Your task to perform on an android device: open the mobile data screen to see how much data has been used Image 0: 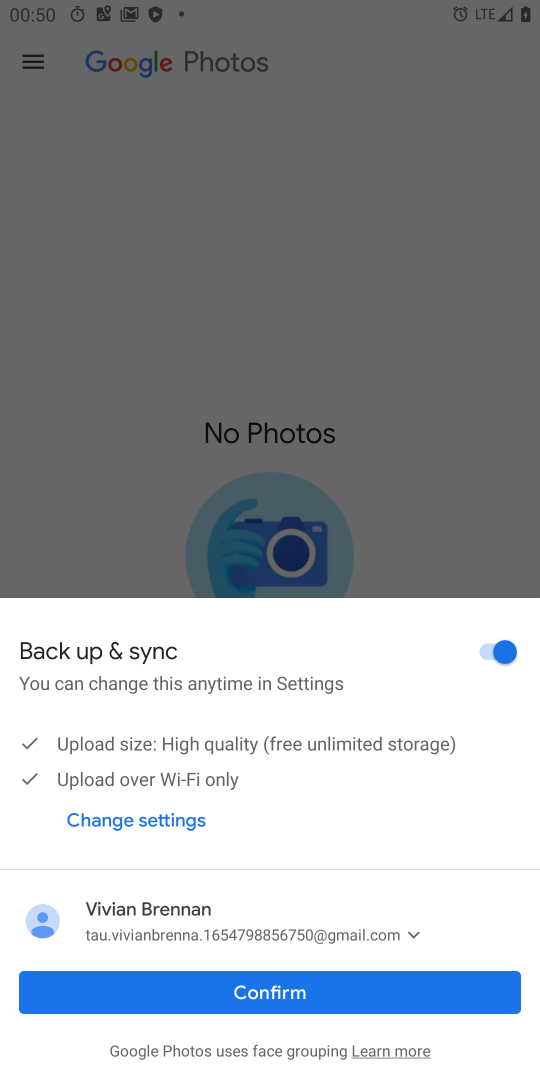
Step 0: press home button
Your task to perform on an android device: open the mobile data screen to see how much data has been used Image 1: 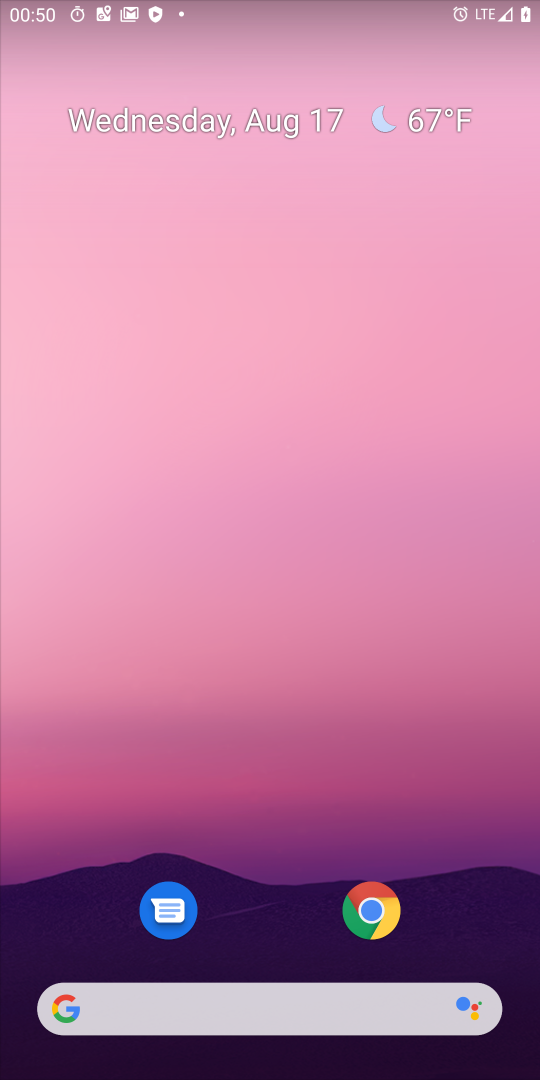
Step 1: drag from (268, 915) to (212, 113)
Your task to perform on an android device: open the mobile data screen to see how much data has been used Image 2: 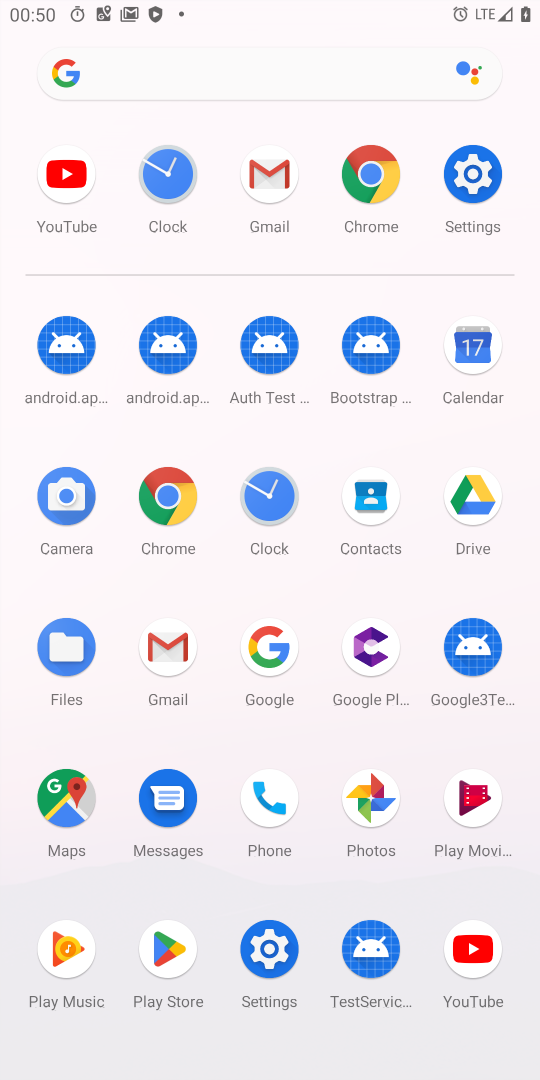
Step 2: click (265, 933)
Your task to perform on an android device: open the mobile data screen to see how much data has been used Image 3: 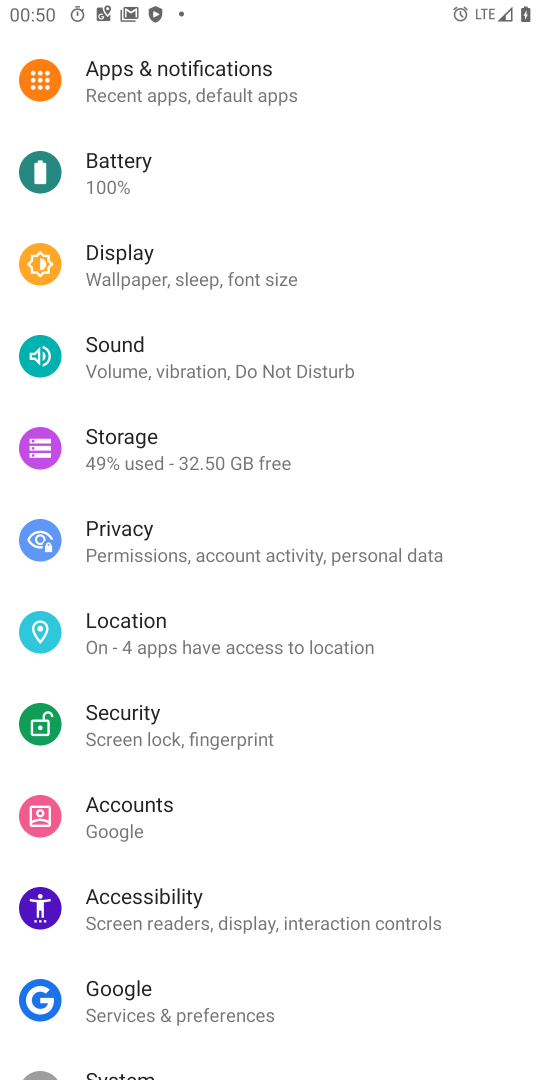
Step 3: drag from (207, 160) to (256, 838)
Your task to perform on an android device: open the mobile data screen to see how much data has been used Image 4: 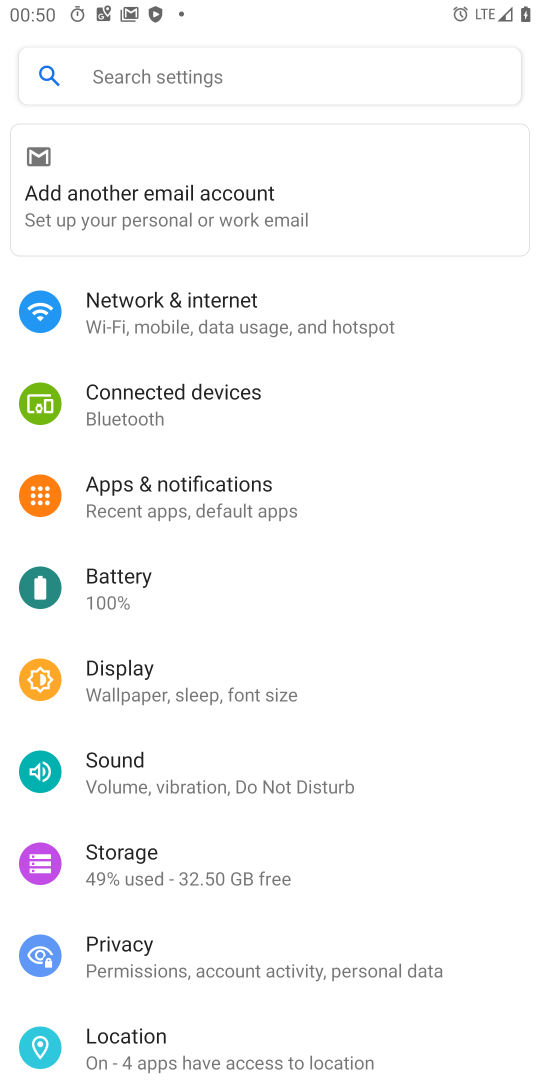
Step 4: click (184, 317)
Your task to perform on an android device: open the mobile data screen to see how much data has been used Image 5: 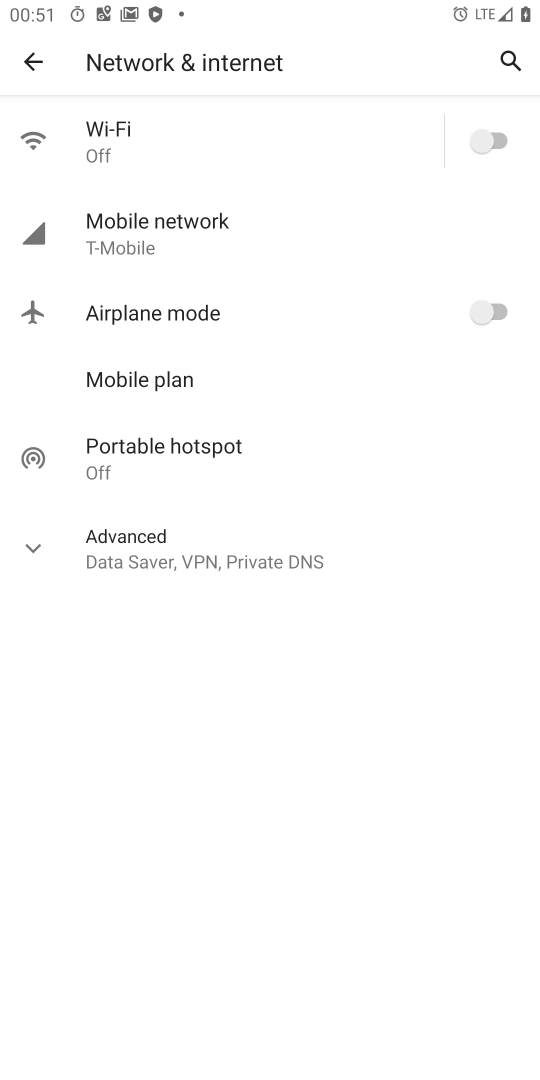
Step 5: click (225, 231)
Your task to perform on an android device: open the mobile data screen to see how much data has been used Image 6: 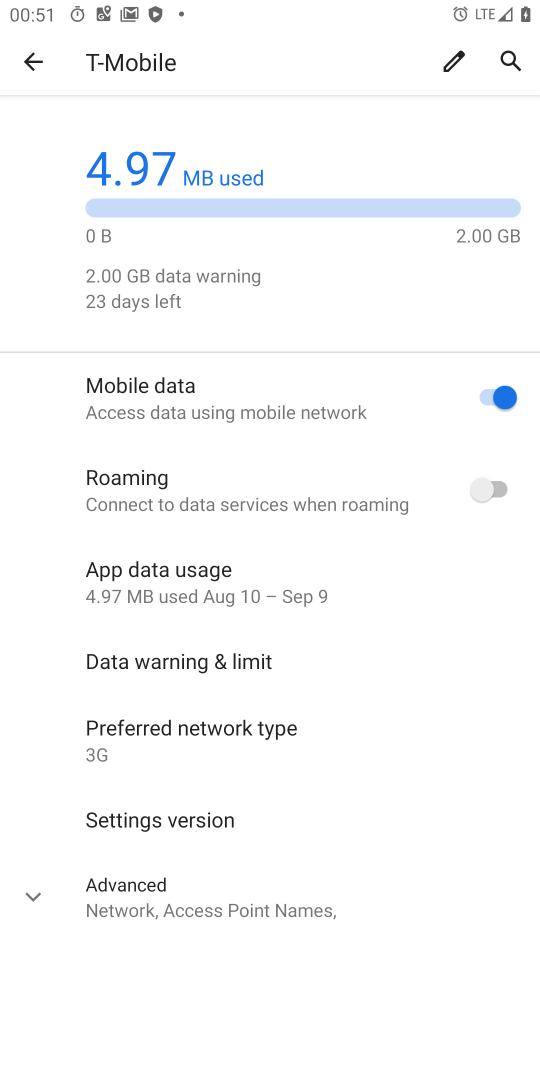
Step 6: task complete